Your task to perform on an android device: Open Chrome and go to the settings page Image 0: 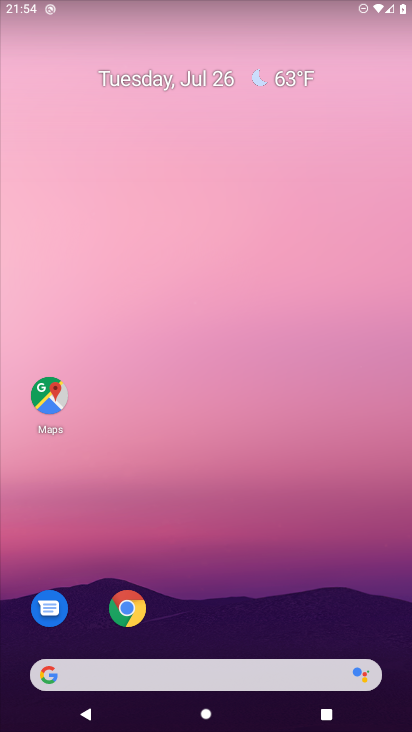
Step 0: drag from (58, 656) to (202, 177)
Your task to perform on an android device: Open Chrome and go to the settings page Image 1: 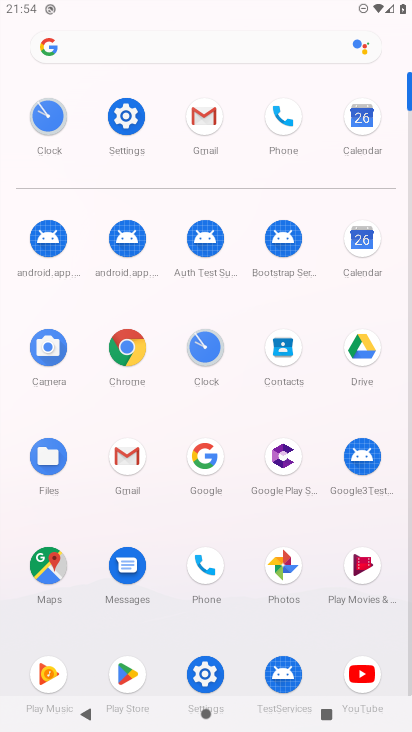
Step 1: click (127, 348)
Your task to perform on an android device: Open Chrome and go to the settings page Image 2: 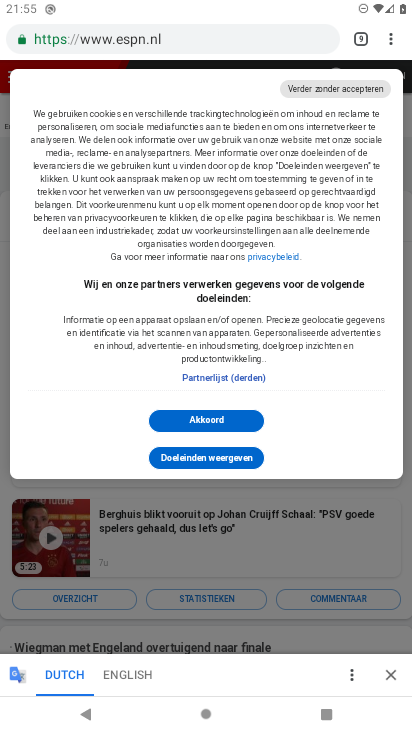
Step 2: click (387, 38)
Your task to perform on an android device: Open Chrome and go to the settings page Image 3: 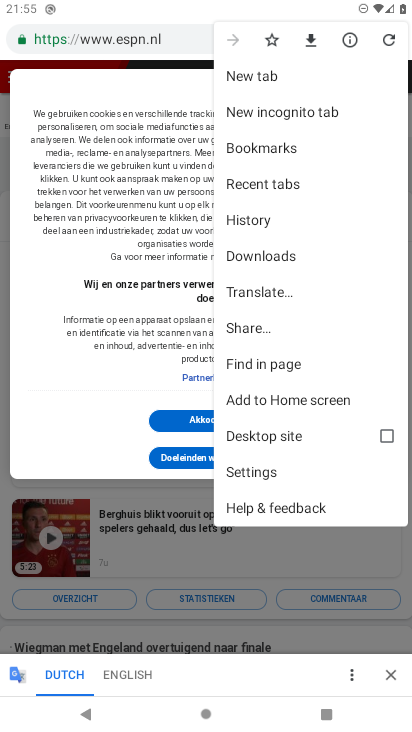
Step 3: click (252, 464)
Your task to perform on an android device: Open Chrome and go to the settings page Image 4: 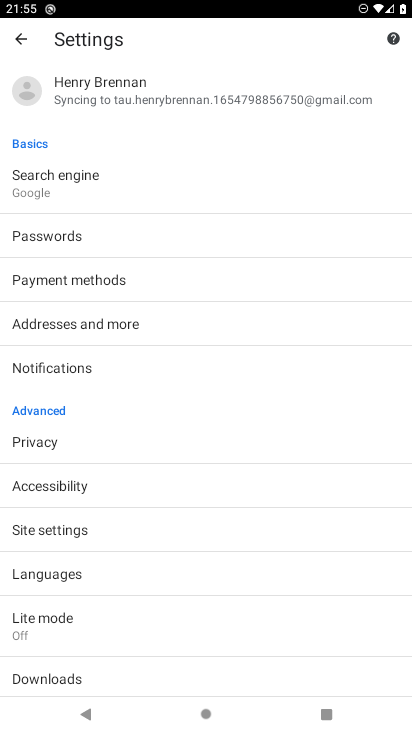
Step 4: task complete